Your task to perform on an android device: Open the Play Movies app and select the watchlist tab. Image 0: 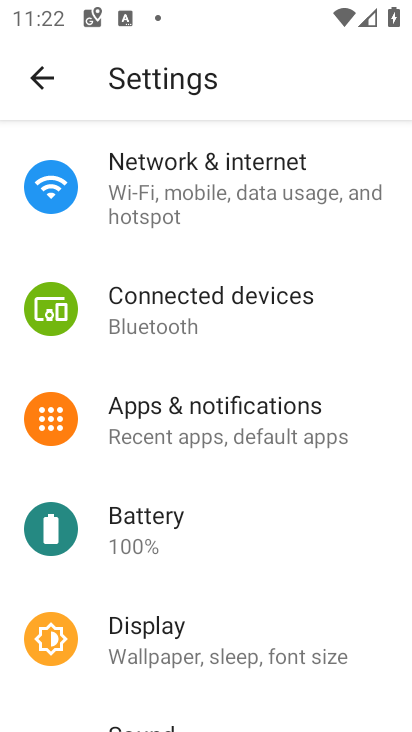
Step 0: press home button
Your task to perform on an android device: Open the Play Movies app and select the watchlist tab. Image 1: 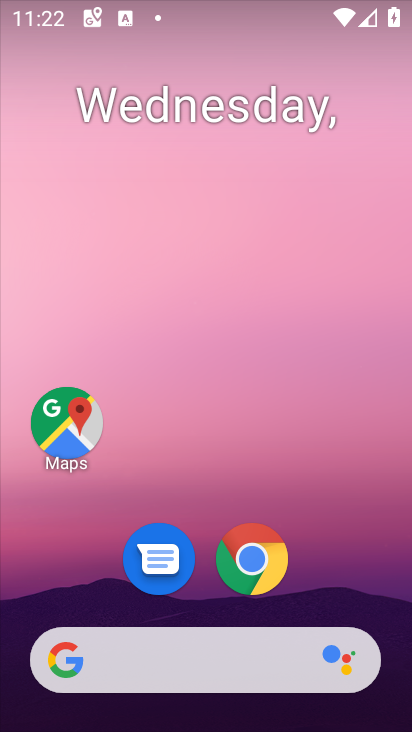
Step 1: drag from (269, 639) to (353, 169)
Your task to perform on an android device: Open the Play Movies app and select the watchlist tab. Image 2: 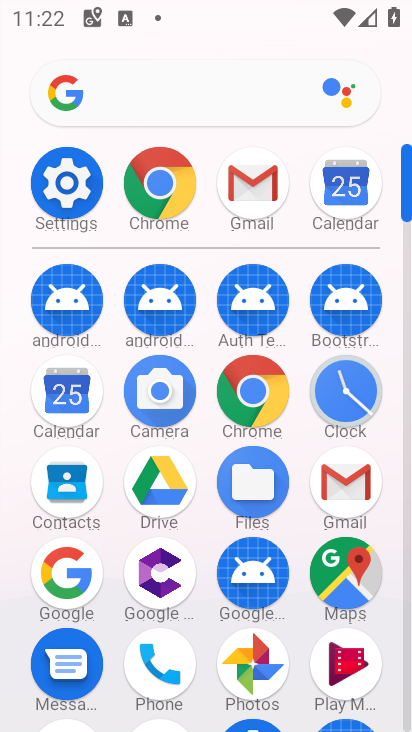
Step 2: drag from (238, 454) to (327, 153)
Your task to perform on an android device: Open the Play Movies app and select the watchlist tab. Image 3: 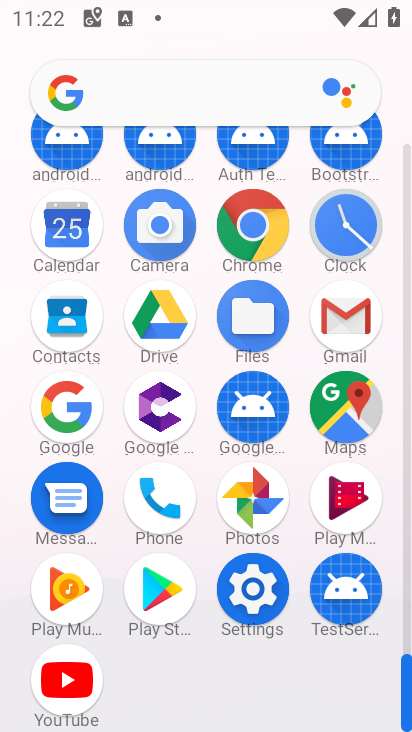
Step 3: click (344, 506)
Your task to perform on an android device: Open the Play Movies app and select the watchlist tab. Image 4: 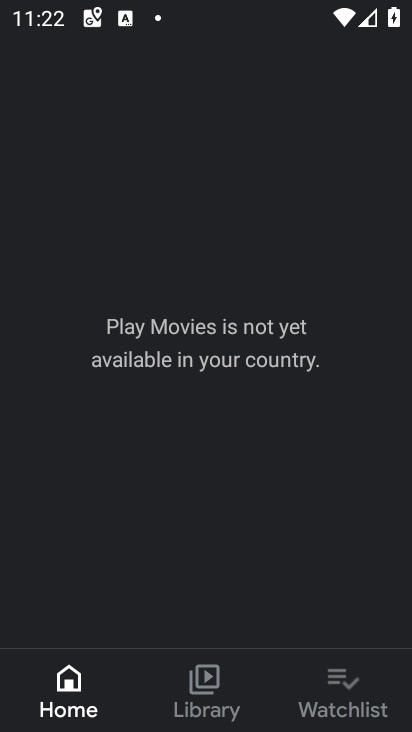
Step 4: click (343, 692)
Your task to perform on an android device: Open the Play Movies app and select the watchlist tab. Image 5: 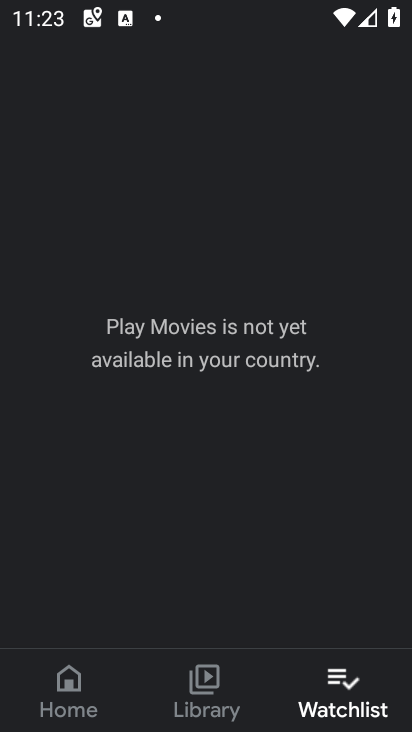
Step 5: task complete